Your task to perform on an android device: turn pop-ups on in chrome Image 0: 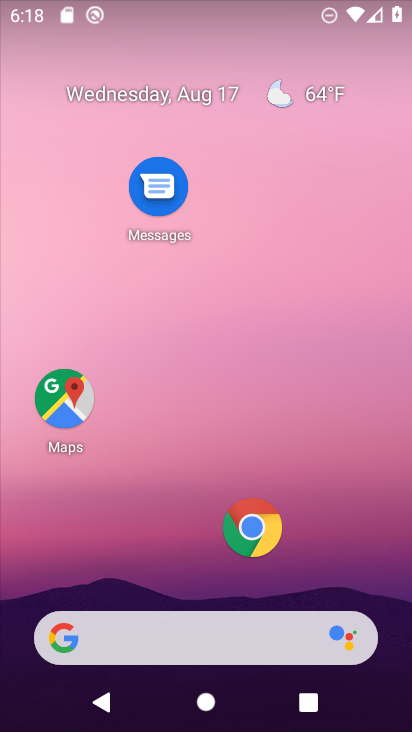
Step 0: click (252, 523)
Your task to perform on an android device: turn pop-ups on in chrome Image 1: 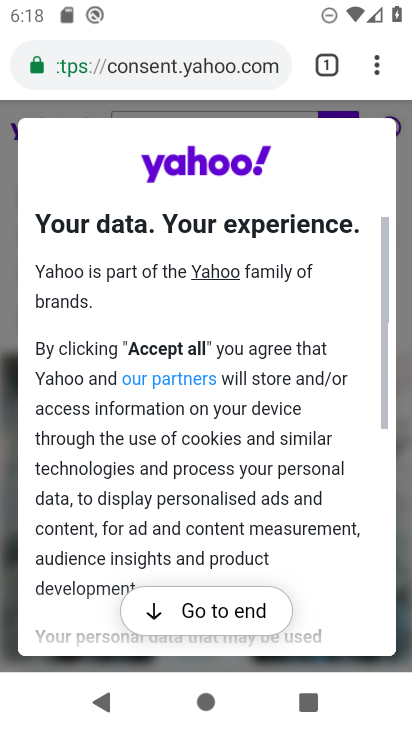
Step 1: click (380, 70)
Your task to perform on an android device: turn pop-ups on in chrome Image 2: 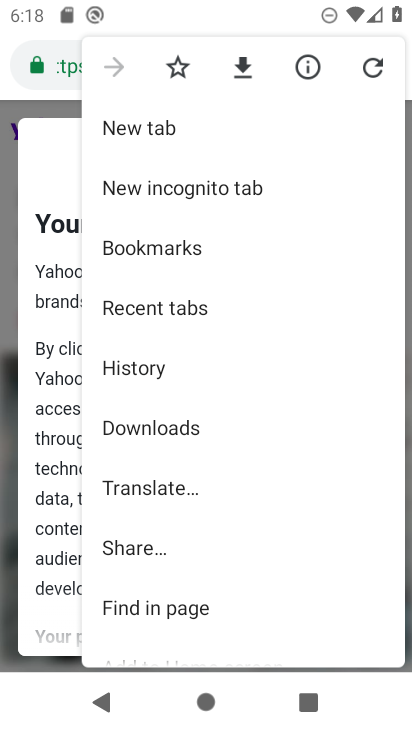
Step 2: drag from (131, 626) to (131, 166)
Your task to perform on an android device: turn pop-ups on in chrome Image 3: 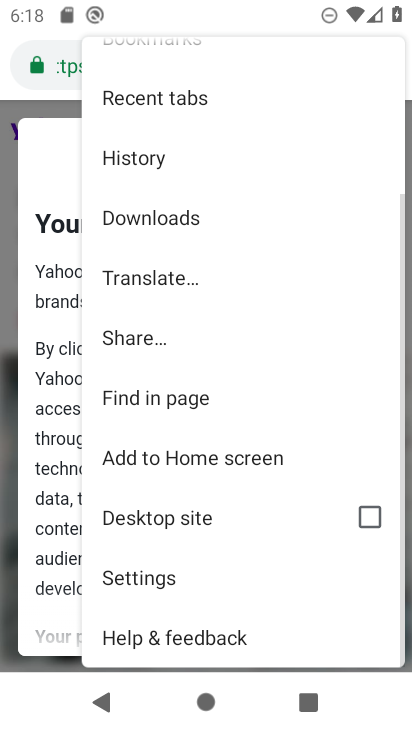
Step 3: click (135, 576)
Your task to perform on an android device: turn pop-ups on in chrome Image 4: 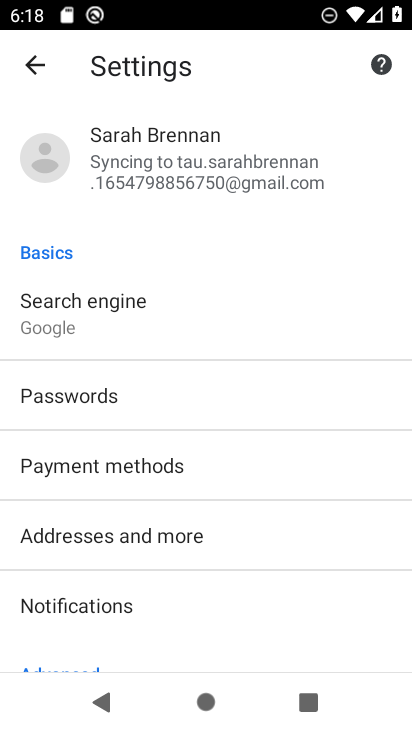
Step 4: drag from (93, 604) to (89, 326)
Your task to perform on an android device: turn pop-ups on in chrome Image 5: 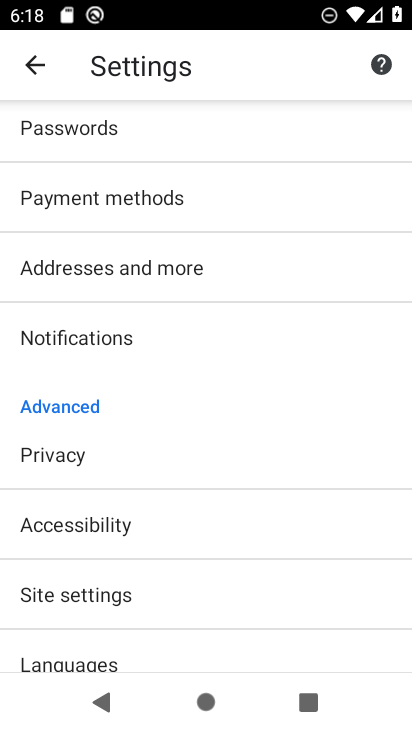
Step 5: click (89, 590)
Your task to perform on an android device: turn pop-ups on in chrome Image 6: 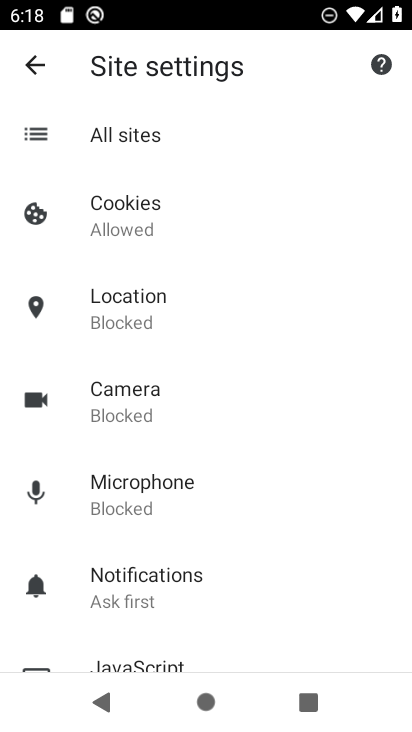
Step 6: drag from (107, 638) to (105, 335)
Your task to perform on an android device: turn pop-ups on in chrome Image 7: 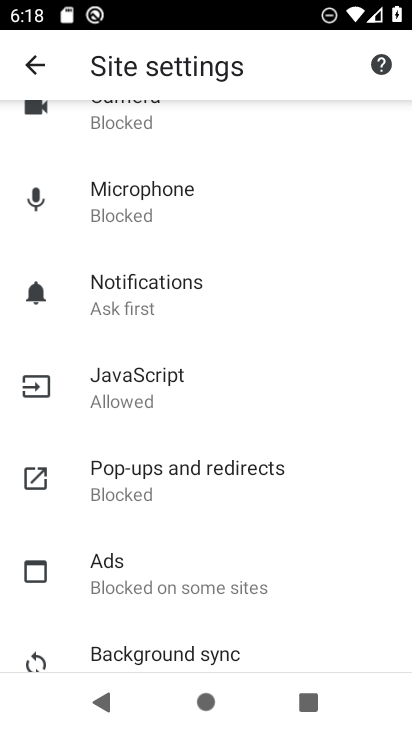
Step 7: click (115, 487)
Your task to perform on an android device: turn pop-ups on in chrome Image 8: 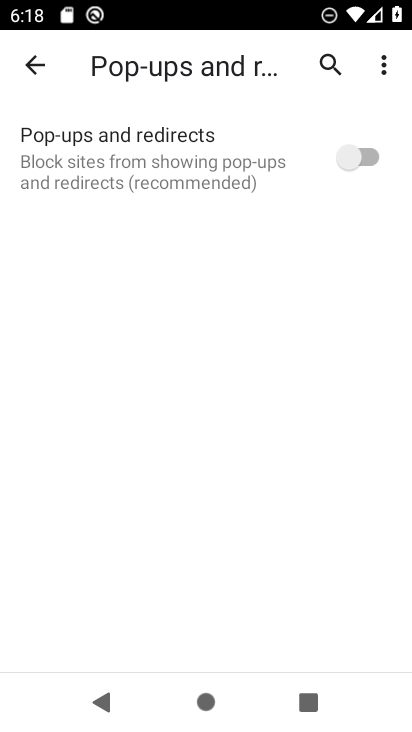
Step 8: click (365, 154)
Your task to perform on an android device: turn pop-ups on in chrome Image 9: 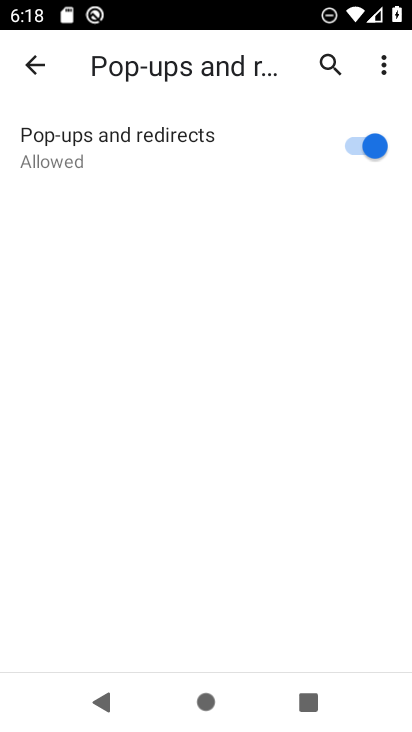
Step 9: task complete